Your task to perform on an android device: Open Google Maps Image 0: 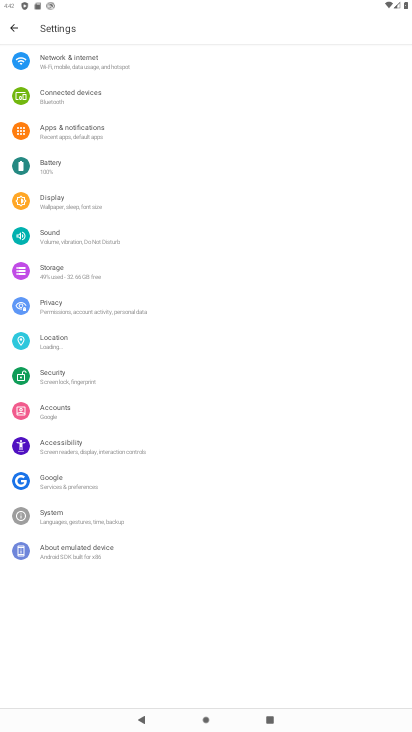
Step 0: press back button
Your task to perform on an android device: Open Google Maps Image 1: 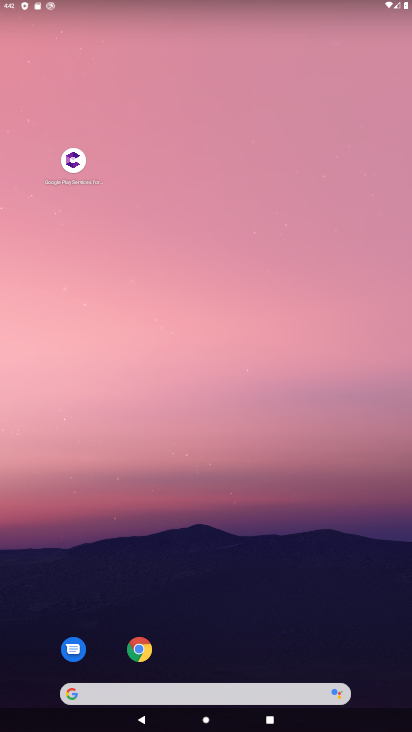
Step 1: drag from (174, 566) to (174, 214)
Your task to perform on an android device: Open Google Maps Image 2: 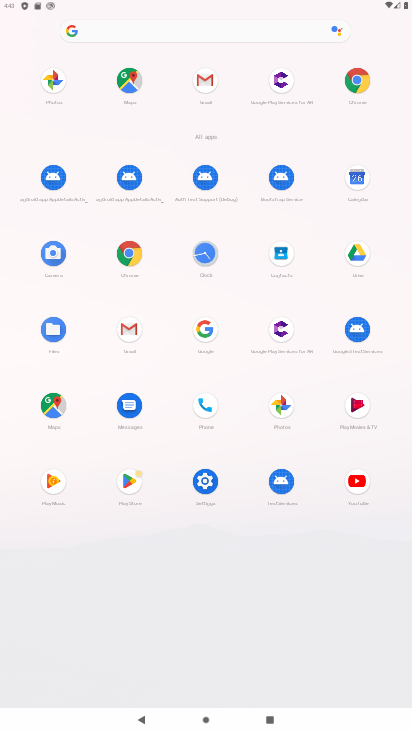
Step 2: click (50, 412)
Your task to perform on an android device: Open Google Maps Image 3: 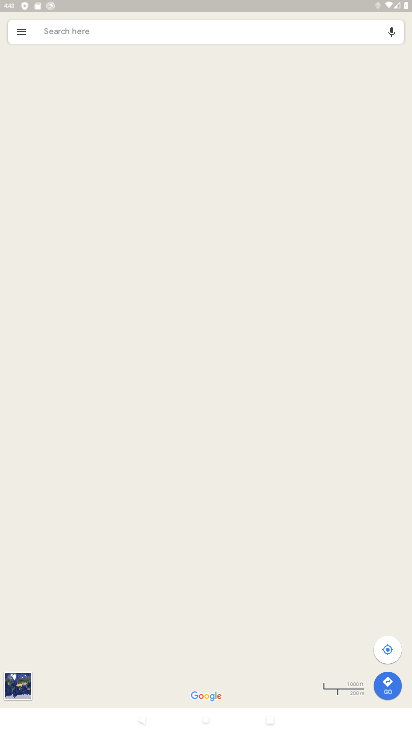
Step 3: task complete